Your task to perform on an android device: Open calendar and show me the first week of next month Image 0: 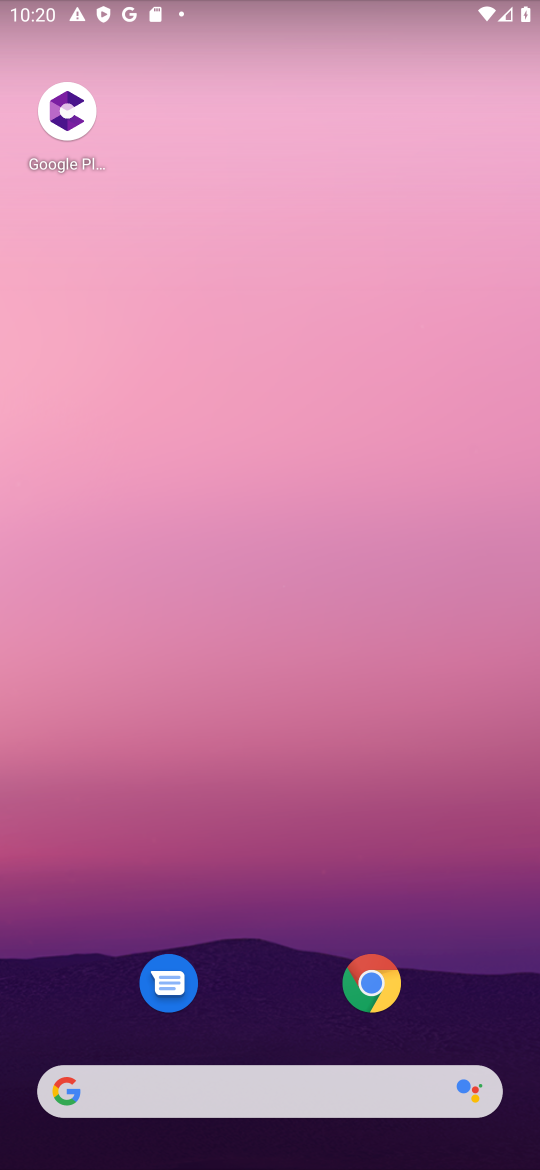
Step 0: press home button
Your task to perform on an android device: Open calendar and show me the first week of next month Image 1: 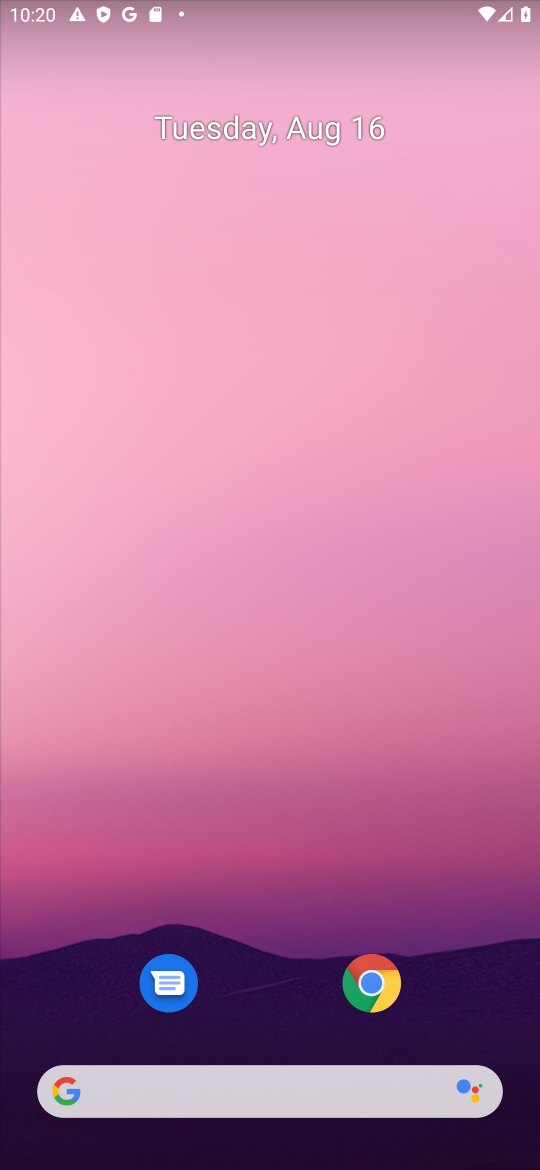
Step 1: drag from (271, 1109) to (373, 442)
Your task to perform on an android device: Open calendar and show me the first week of next month Image 2: 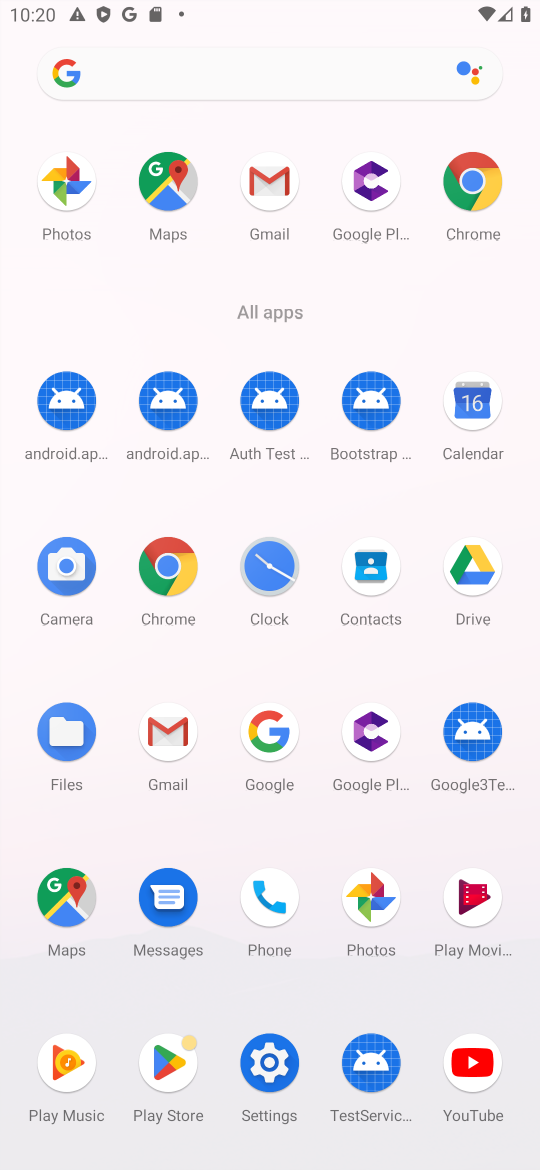
Step 2: click (475, 421)
Your task to perform on an android device: Open calendar and show me the first week of next month Image 3: 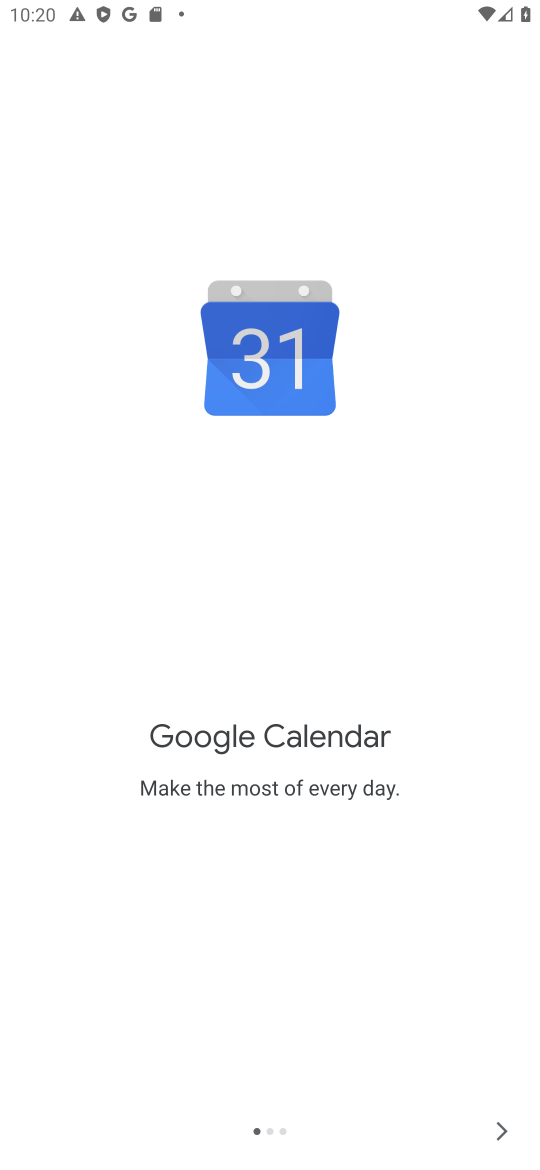
Step 3: click (501, 1133)
Your task to perform on an android device: Open calendar and show me the first week of next month Image 4: 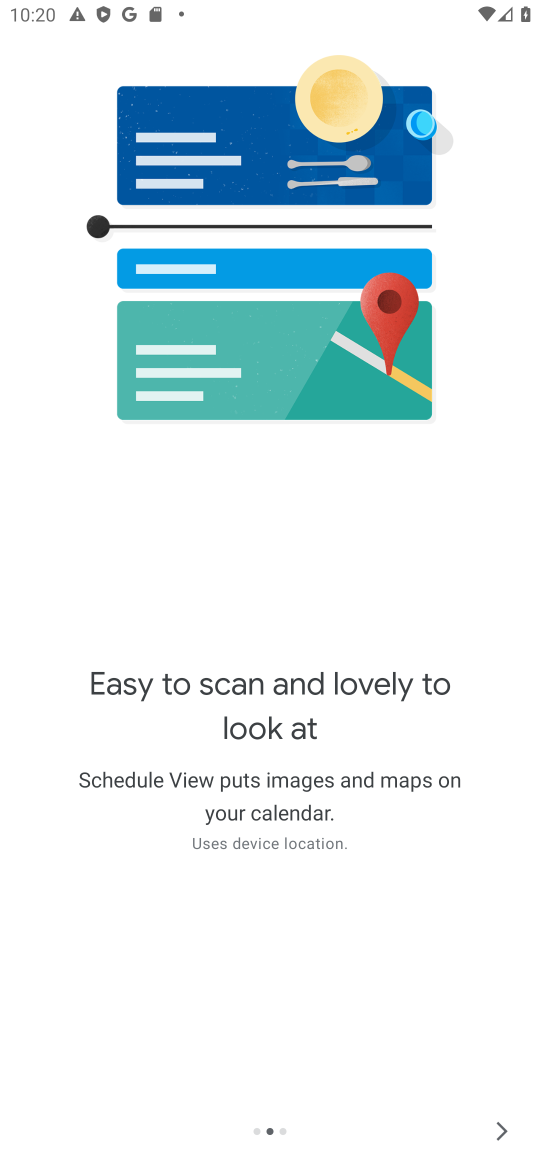
Step 4: click (501, 1133)
Your task to perform on an android device: Open calendar and show me the first week of next month Image 5: 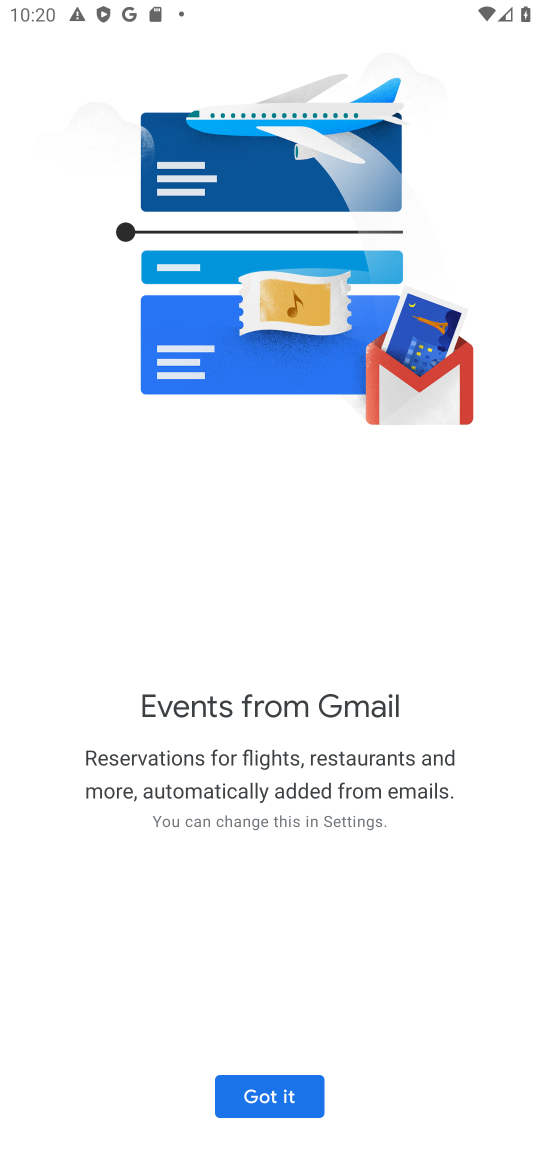
Step 5: click (226, 1095)
Your task to perform on an android device: Open calendar and show me the first week of next month Image 6: 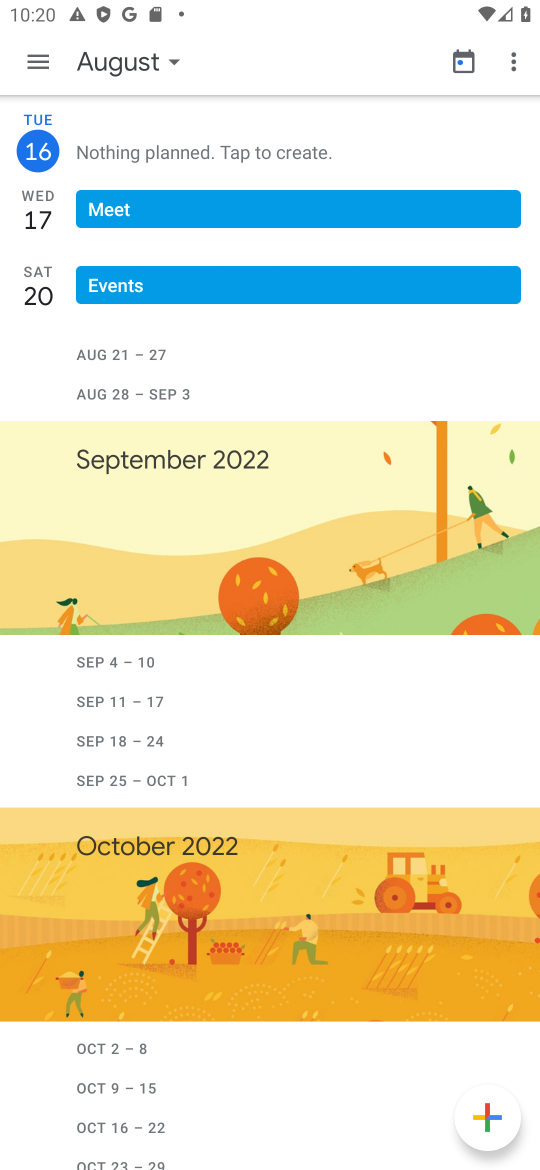
Step 6: click (38, 67)
Your task to perform on an android device: Open calendar and show me the first week of next month Image 7: 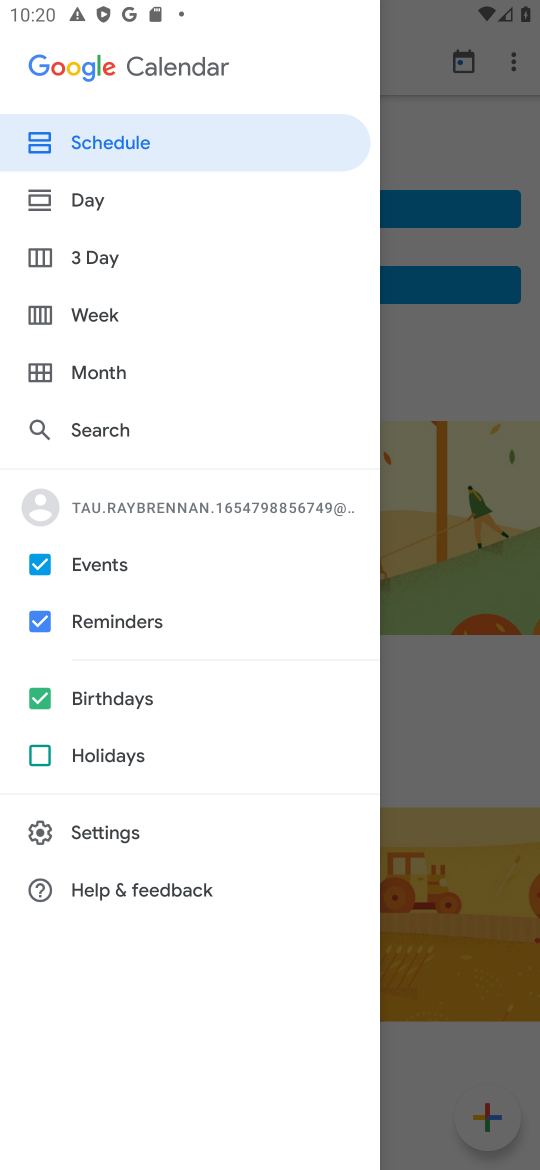
Step 7: click (116, 369)
Your task to perform on an android device: Open calendar and show me the first week of next month Image 8: 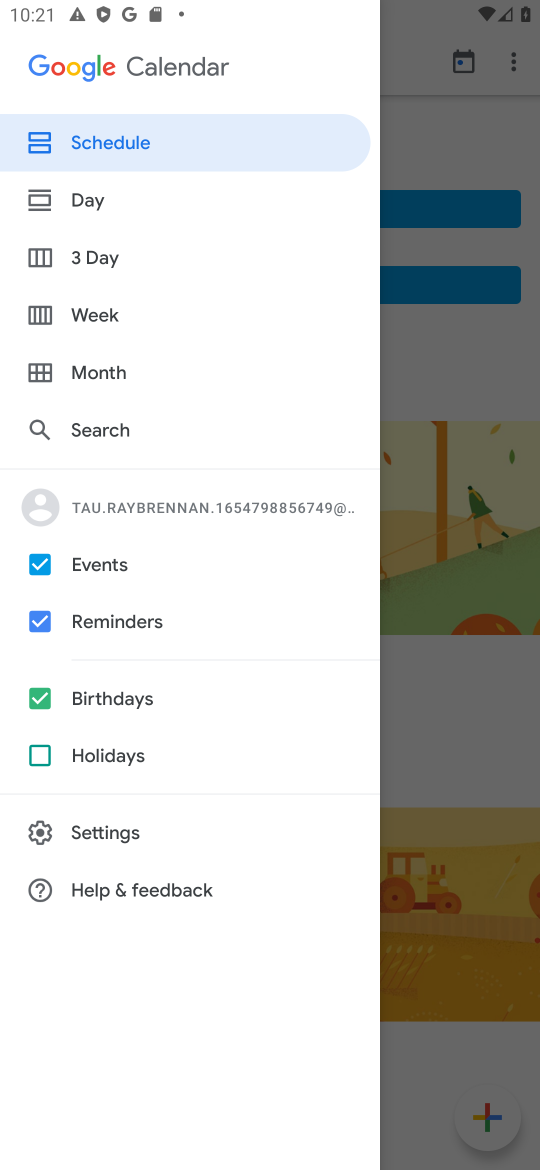
Step 8: click (116, 369)
Your task to perform on an android device: Open calendar and show me the first week of next month Image 9: 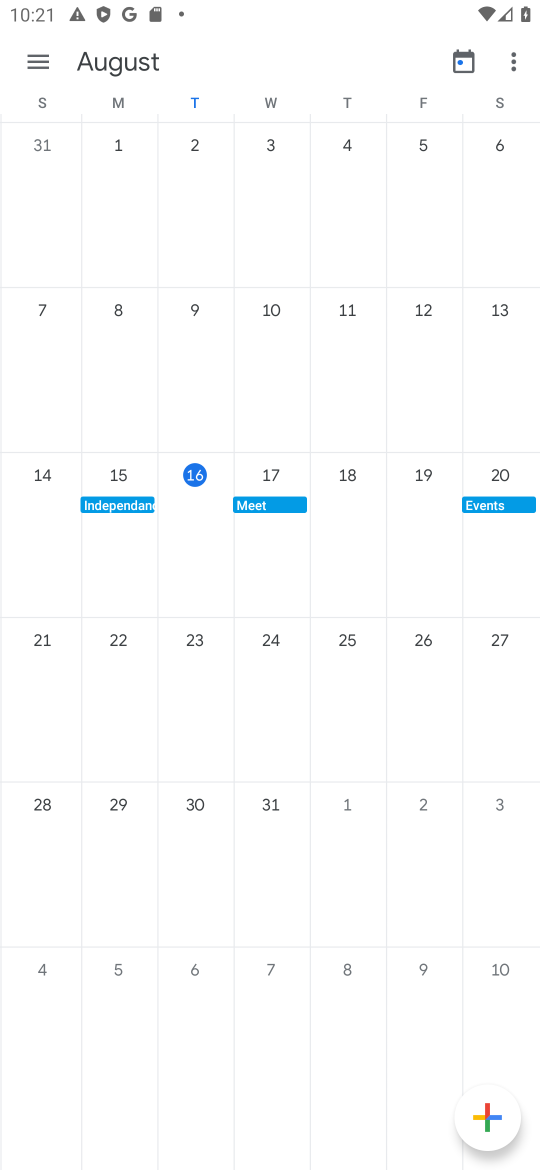
Step 9: task complete